Your task to perform on an android device: uninstall "Contacts" Image 0: 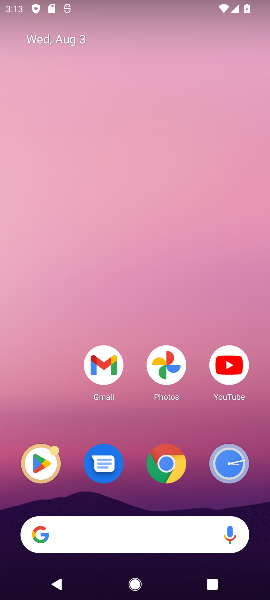
Step 0: drag from (179, 493) to (129, 159)
Your task to perform on an android device: uninstall "Contacts" Image 1: 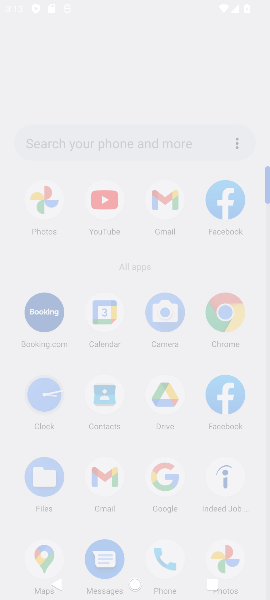
Step 1: drag from (146, 443) to (136, 142)
Your task to perform on an android device: uninstall "Contacts" Image 2: 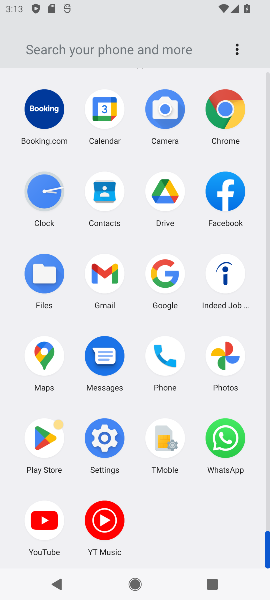
Step 2: click (39, 436)
Your task to perform on an android device: uninstall "Contacts" Image 3: 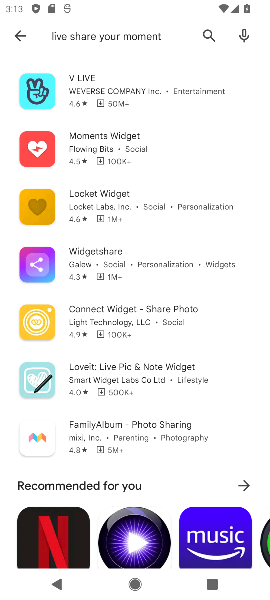
Step 3: click (208, 33)
Your task to perform on an android device: uninstall "Contacts" Image 4: 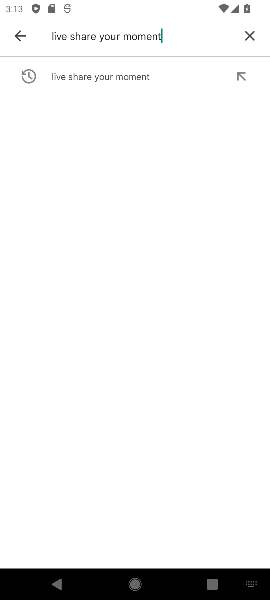
Step 4: click (251, 36)
Your task to perform on an android device: uninstall "Contacts" Image 5: 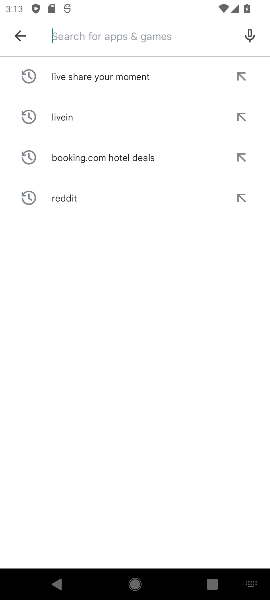
Step 5: type "contacts"
Your task to perform on an android device: uninstall "Contacts" Image 6: 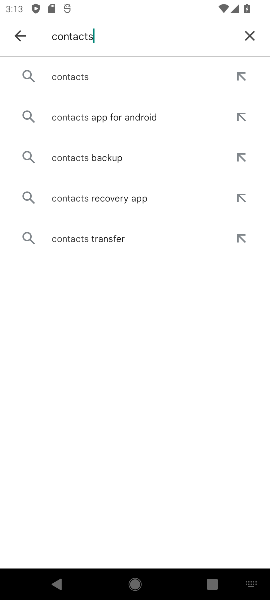
Step 6: click (67, 80)
Your task to perform on an android device: uninstall "Contacts" Image 7: 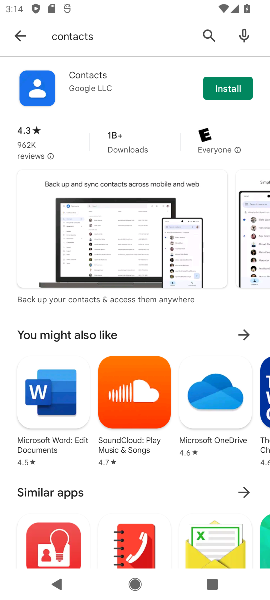
Step 7: task complete